Your task to perform on an android device: Open CNN.com Image 0: 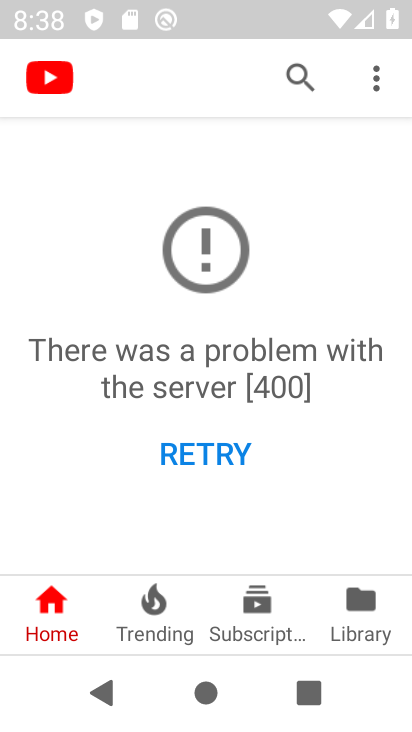
Step 0: press home button
Your task to perform on an android device: Open CNN.com Image 1: 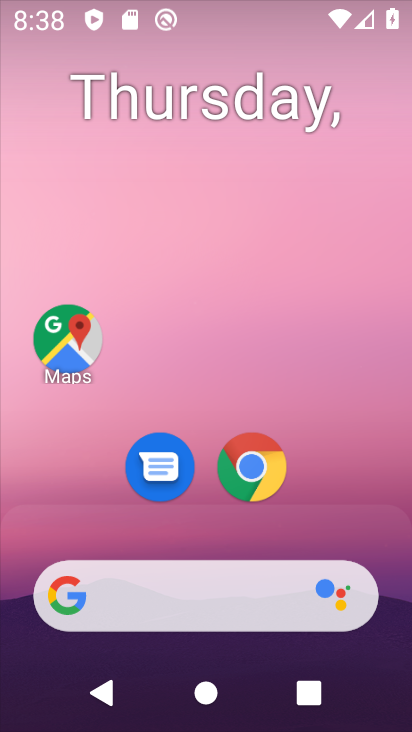
Step 1: drag from (382, 490) to (353, 0)
Your task to perform on an android device: Open CNN.com Image 2: 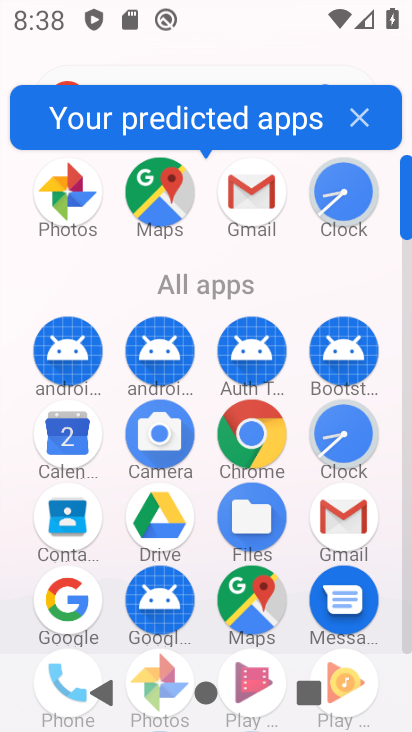
Step 2: click (256, 449)
Your task to perform on an android device: Open CNN.com Image 3: 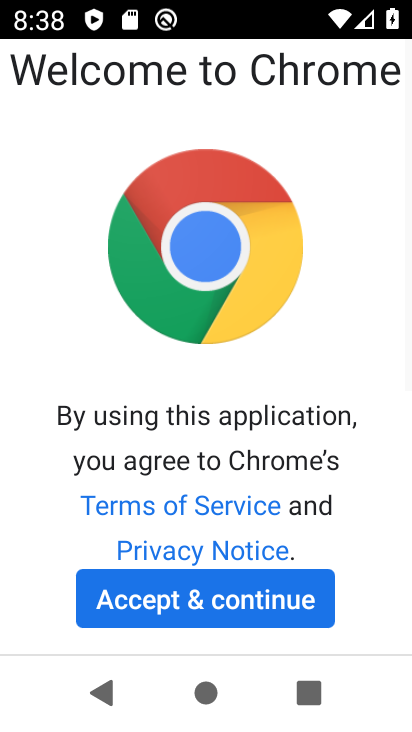
Step 3: click (224, 616)
Your task to perform on an android device: Open CNN.com Image 4: 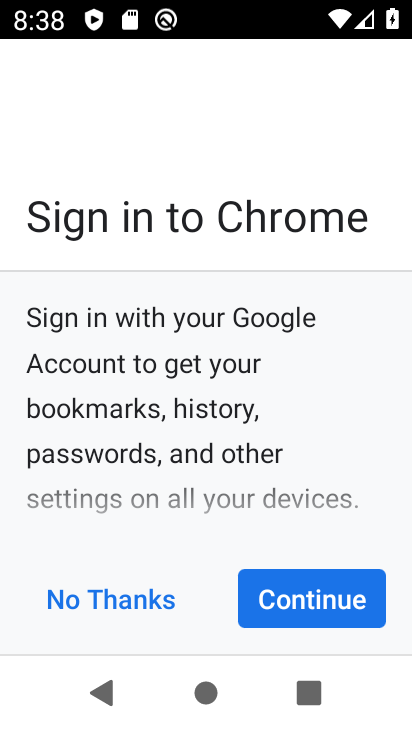
Step 4: click (127, 608)
Your task to perform on an android device: Open CNN.com Image 5: 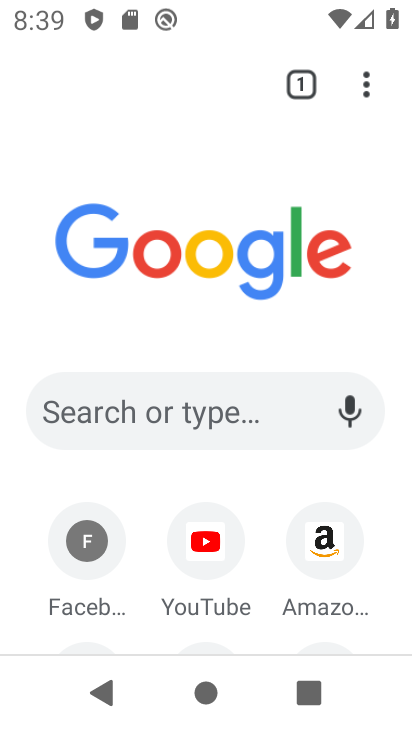
Step 5: drag from (407, 510) to (309, 127)
Your task to perform on an android device: Open CNN.com Image 6: 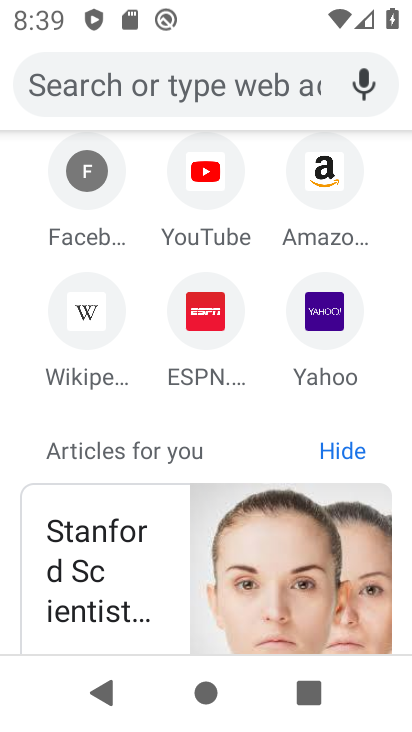
Step 6: drag from (394, 237) to (402, 582)
Your task to perform on an android device: Open CNN.com Image 7: 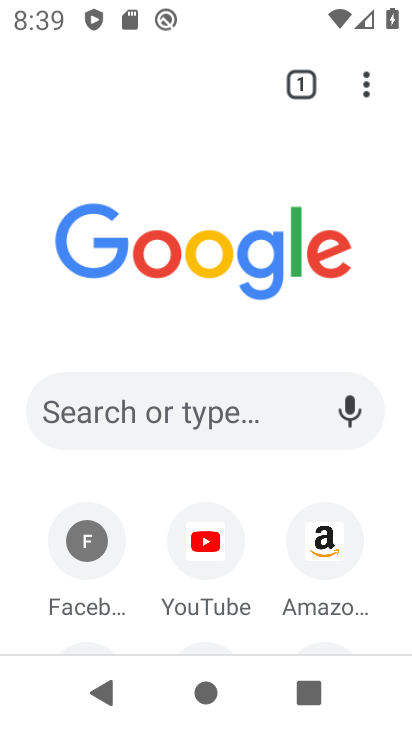
Step 7: click (171, 433)
Your task to perform on an android device: Open CNN.com Image 8: 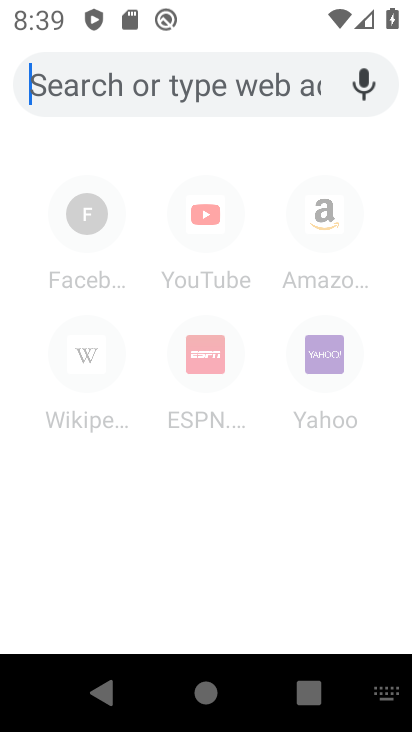
Step 8: type "cnn"
Your task to perform on an android device: Open CNN.com Image 9: 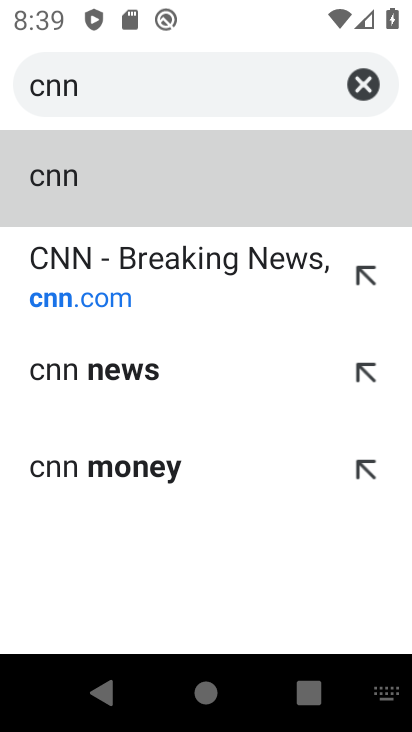
Step 9: click (83, 277)
Your task to perform on an android device: Open CNN.com Image 10: 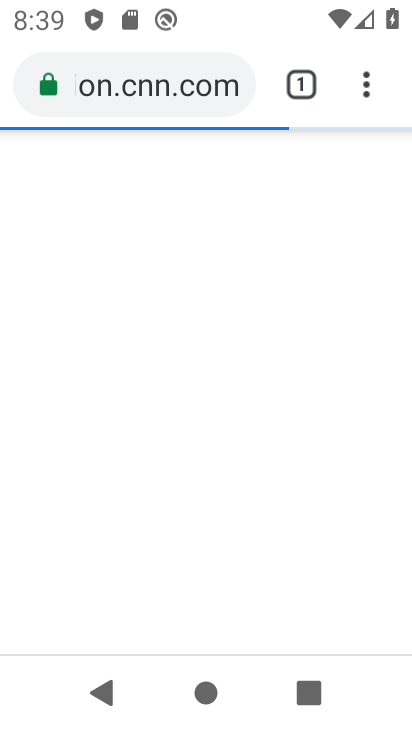
Step 10: task complete